Your task to perform on an android device: Go to ESPN.com Image 0: 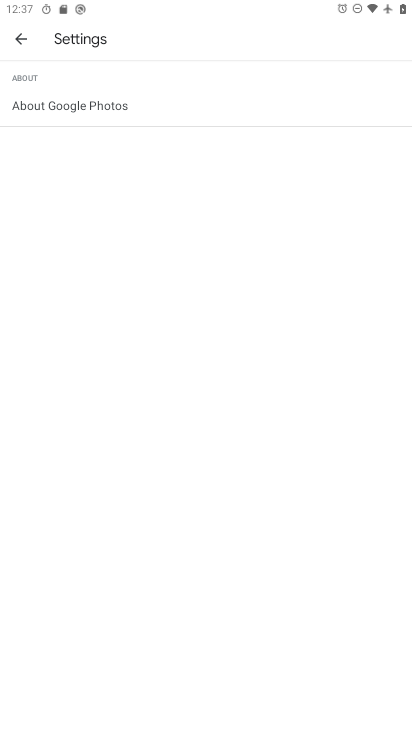
Step 0: press home button
Your task to perform on an android device: Go to ESPN.com Image 1: 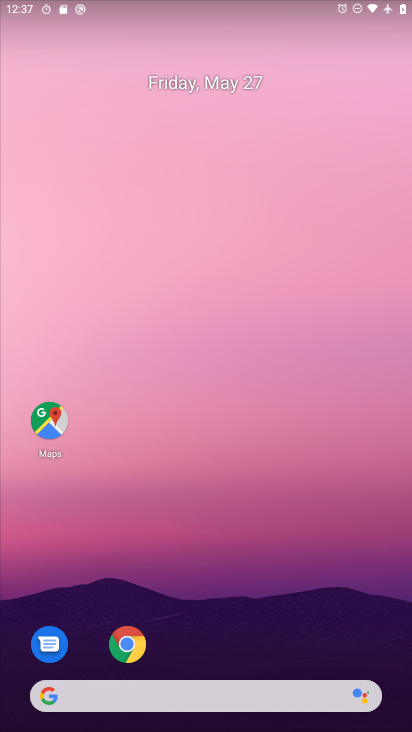
Step 1: click (139, 627)
Your task to perform on an android device: Go to ESPN.com Image 2: 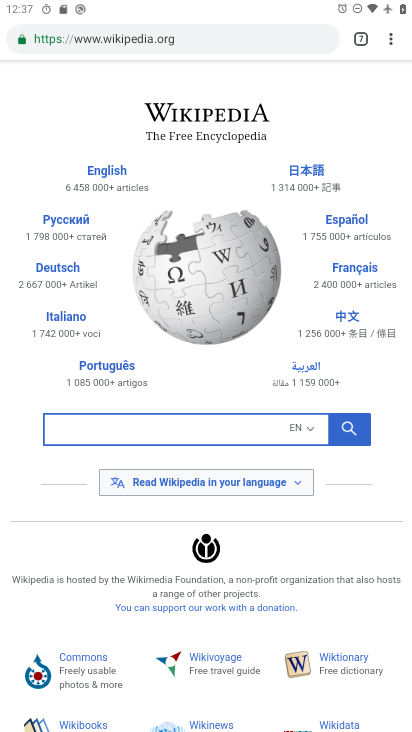
Step 2: click (366, 33)
Your task to perform on an android device: Go to ESPN.com Image 3: 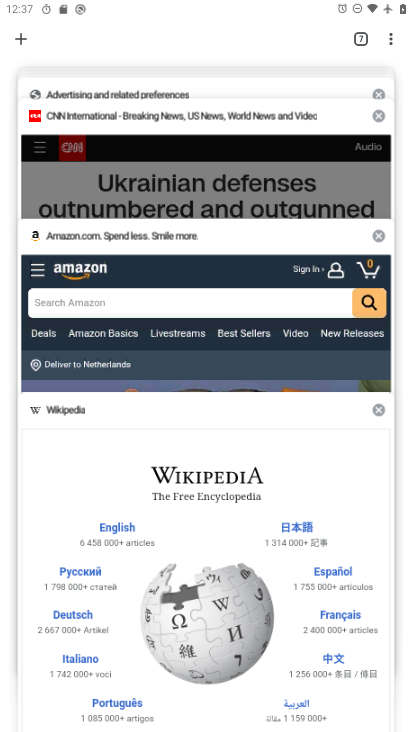
Step 3: click (16, 37)
Your task to perform on an android device: Go to ESPN.com Image 4: 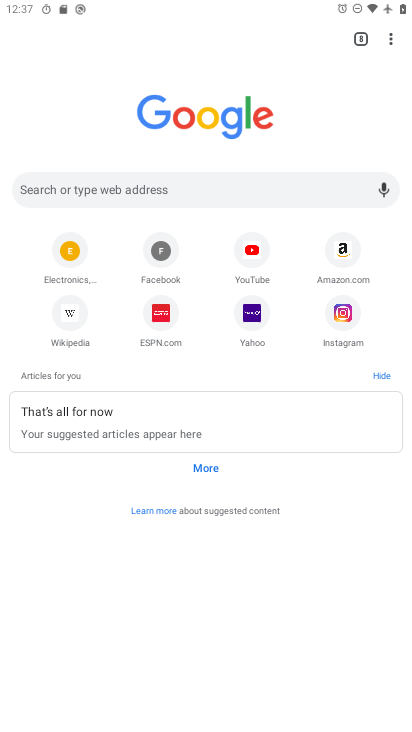
Step 4: click (161, 310)
Your task to perform on an android device: Go to ESPN.com Image 5: 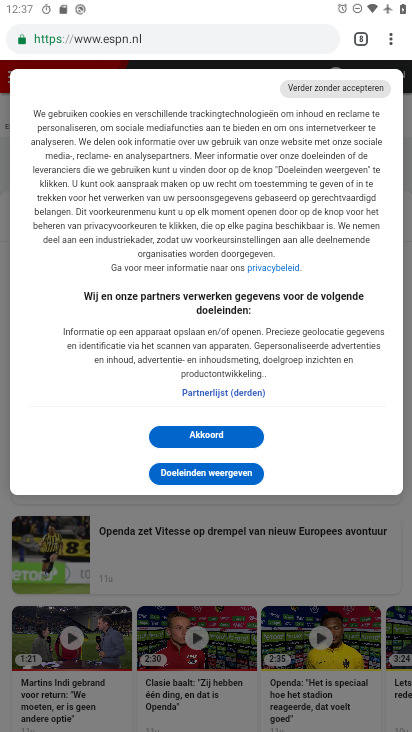
Step 5: task complete